Your task to perform on an android device: Search for seafood restaurants on Google Maps Image 0: 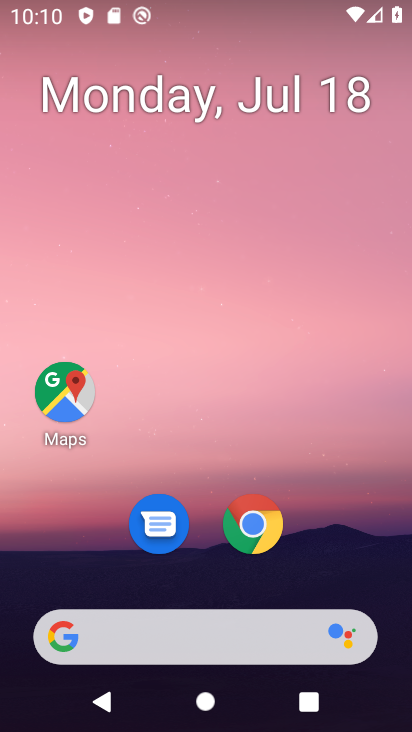
Step 0: click (61, 382)
Your task to perform on an android device: Search for seafood restaurants on Google Maps Image 1: 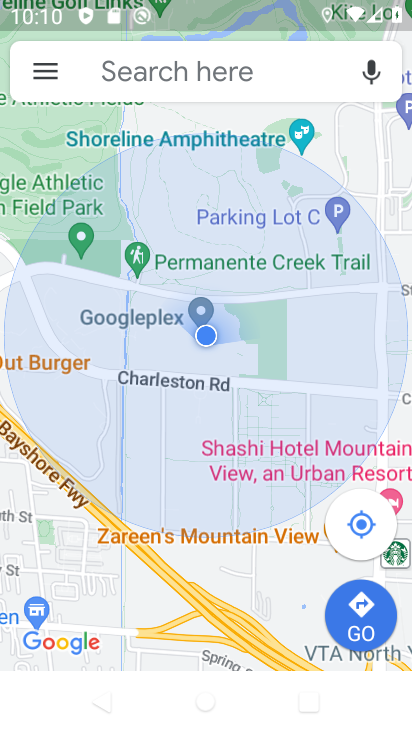
Step 1: click (193, 66)
Your task to perform on an android device: Search for seafood restaurants on Google Maps Image 2: 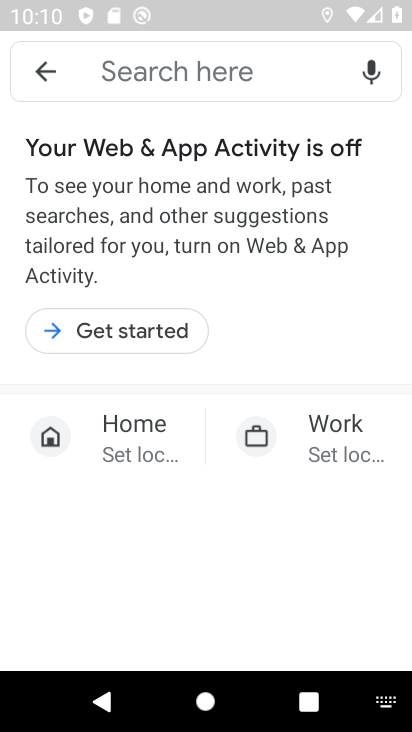
Step 2: click (171, 330)
Your task to perform on an android device: Search for seafood restaurants on Google Maps Image 3: 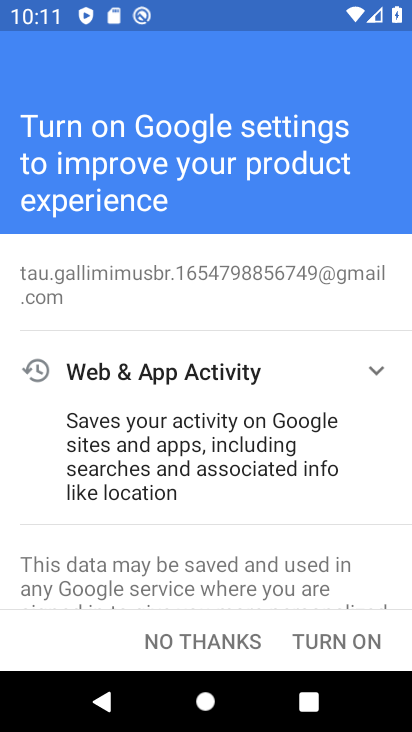
Step 3: click (355, 644)
Your task to perform on an android device: Search for seafood restaurants on Google Maps Image 4: 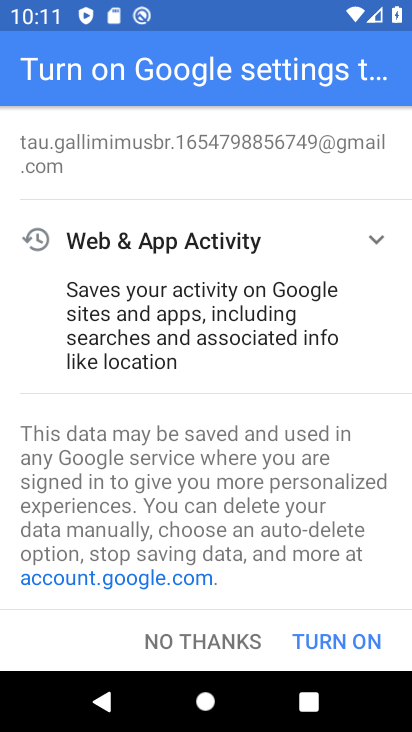
Step 4: click (355, 644)
Your task to perform on an android device: Search for seafood restaurants on Google Maps Image 5: 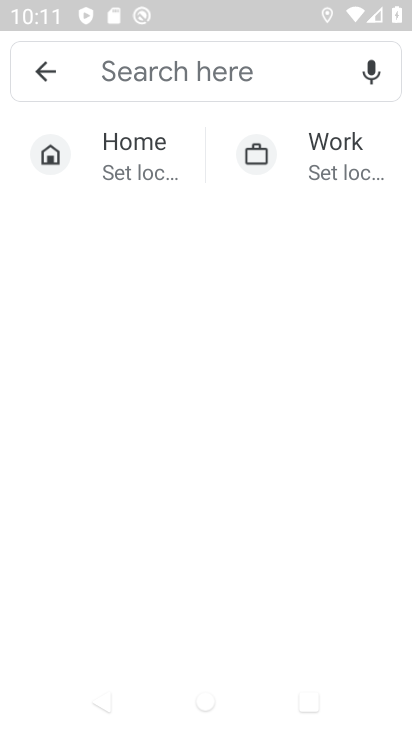
Step 5: click (245, 67)
Your task to perform on an android device: Search for seafood restaurants on Google Maps Image 6: 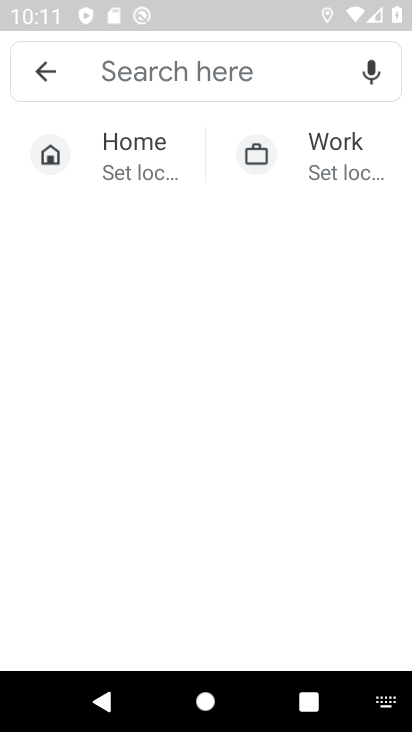
Step 6: click (245, 67)
Your task to perform on an android device: Search for seafood restaurants on Google Maps Image 7: 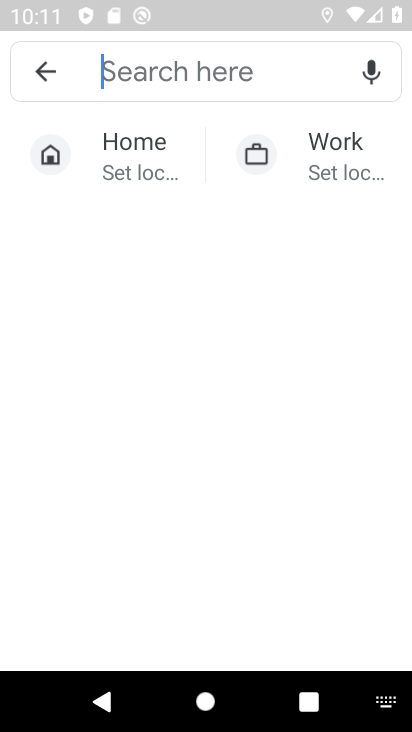
Step 7: type "seafood restaurants"
Your task to perform on an android device: Search for seafood restaurants on Google Maps Image 8: 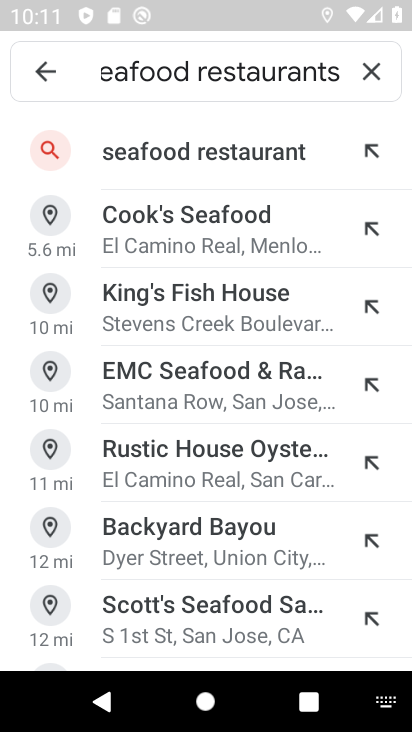
Step 8: click (281, 137)
Your task to perform on an android device: Search for seafood restaurants on Google Maps Image 9: 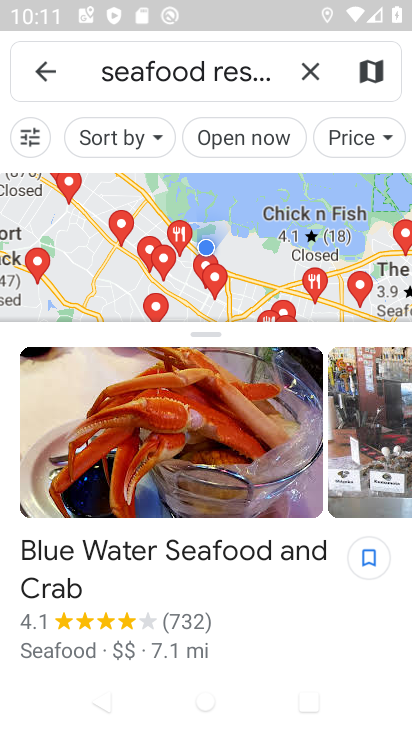
Step 9: task complete